Your task to perform on an android device: Open the web browser Image 0: 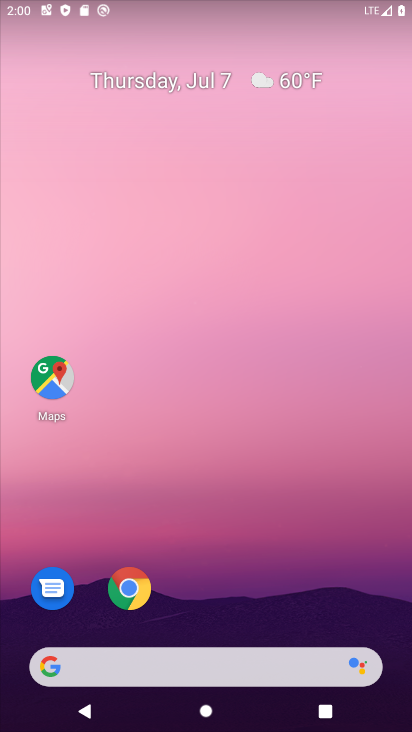
Step 0: drag from (222, 620) to (227, 391)
Your task to perform on an android device: Open the web browser Image 1: 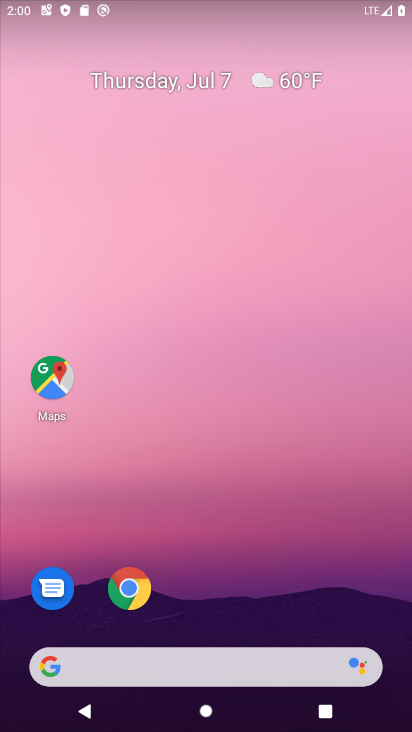
Step 1: drag from (233, 642) to (268, 282)
Your task to perform on an android device: Open the web browser Image 2: 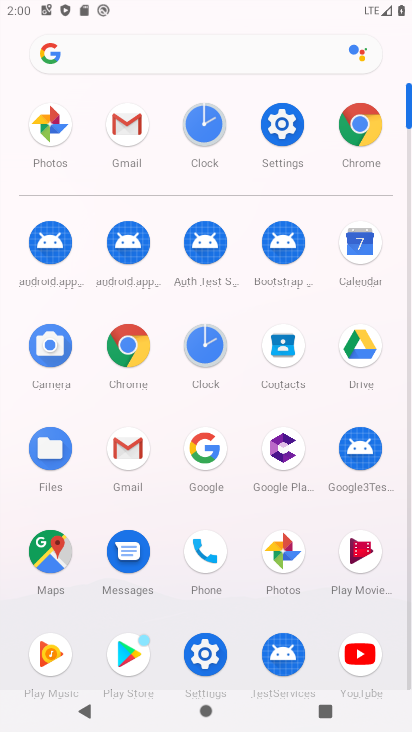
Step 2: click (135, 345)
Your task to perform on an android device: Open the web browser Image 3: 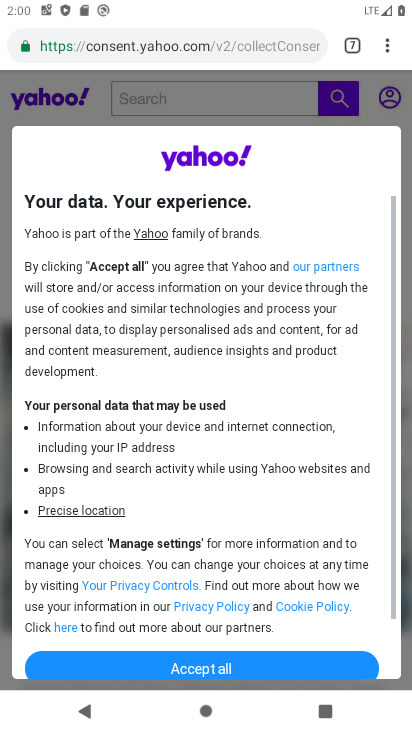
Step 3: task complete